Your task to perform on an android device: remove spam from my inbox in the gmail app Image 0: 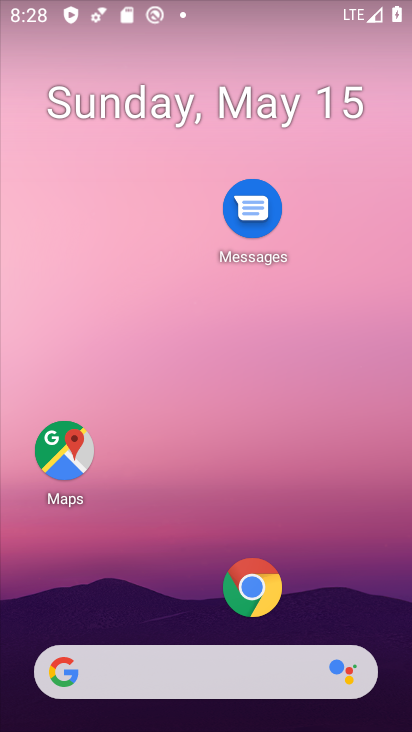
Step 0: drag from (177, 599) to (200, 211)
Your task to perform on an android device: remove spam from my inbox in the gmail app Image 1: 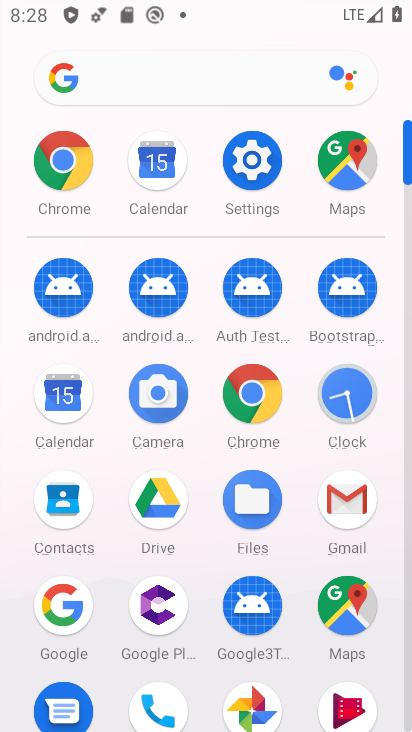
Step 1: click (357, 509)
Your task to perform on an android device: remove spam from my inbox in the gmail app Image 2: 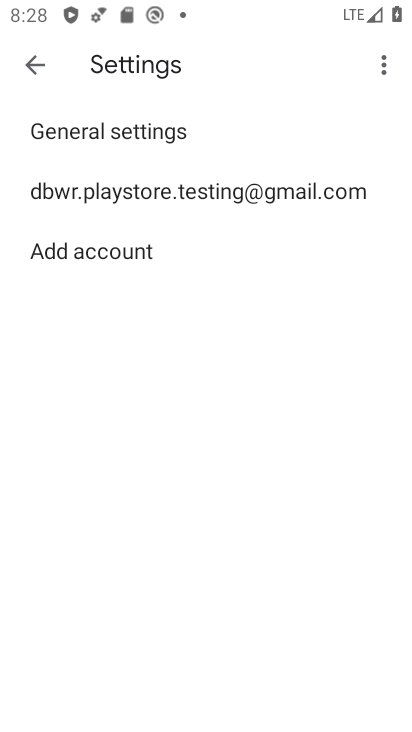
Step 2: click (235, 193)
Your task to perform on an android device: remove spam from my inbox in the gmail app Image 3: 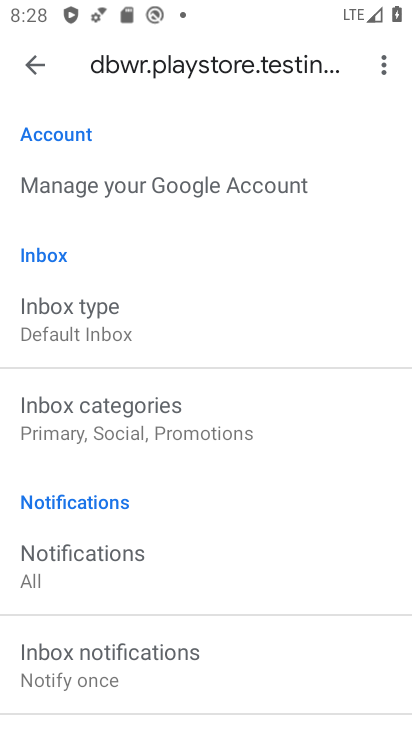
Step 3: click (30, 66)
Your task to perform on an android device: remove spam from my inbox in the gmail app Image 4: 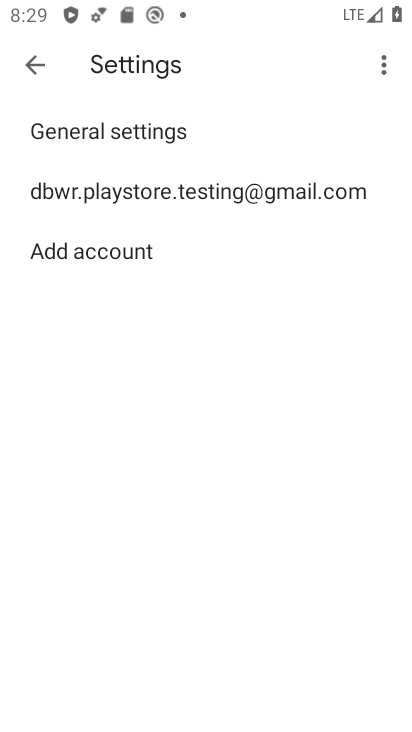
Step 4: click (32, 67)
Your task to perform on an android device: remove spam from my inbox in the gmail app Image 5: 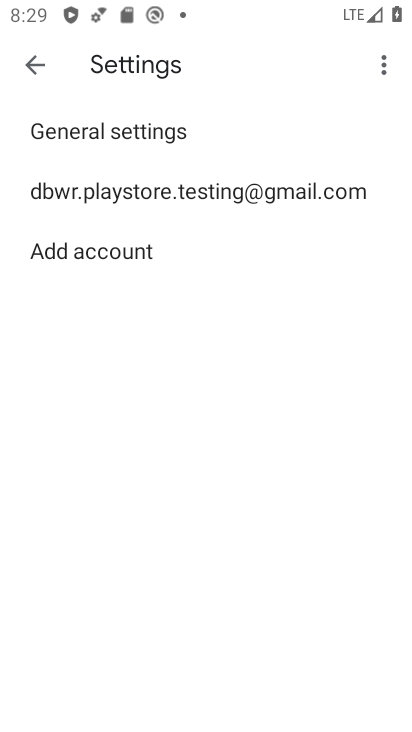
Step 5: click (32, 67)
Your task to perform on an android device: remove spam from my inbox in the gmail app Image 6: 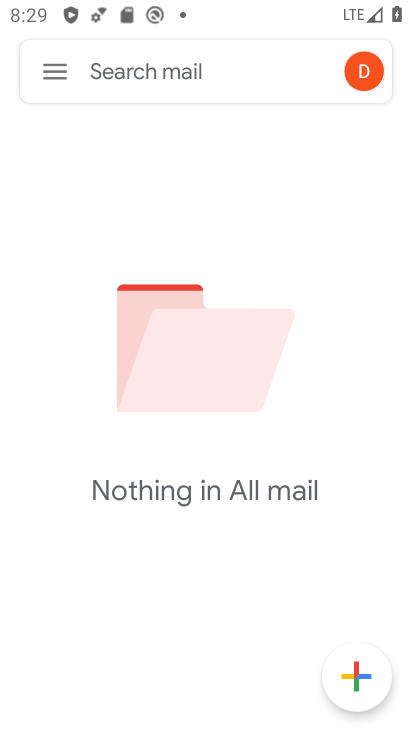
Step 6: click (47, 70)
Your task to perform on an android device: remove spam from my inbox in the gmail app Image 7: 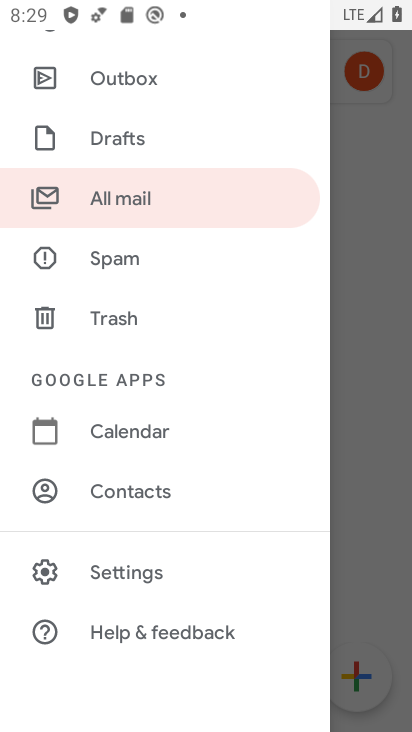
Step 7: click (136, 273)
Your task to perform on an android device: remove spam from my inbox in the gmail app Image 8: 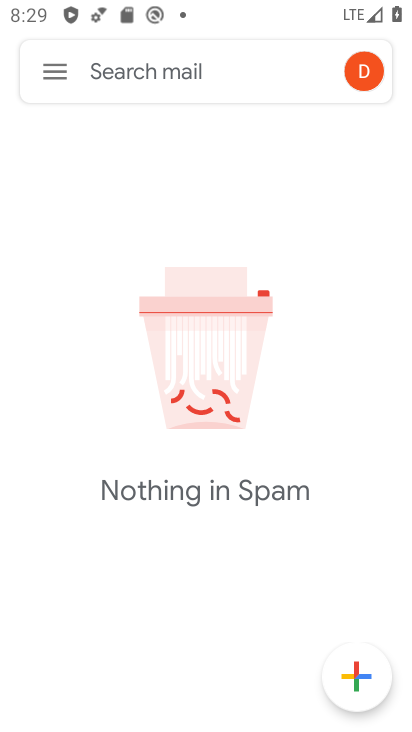
Step 8: task complete